Your task to perform on an android device: Open settings on Google Maps Image 0: 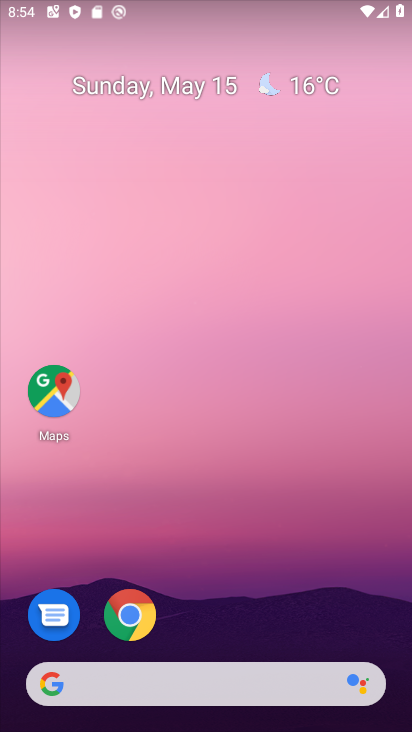
Step 0: drag from (303, 617) to (262, 122)
Your task to perform on an android device: Open settings on Google Maps Image 1: 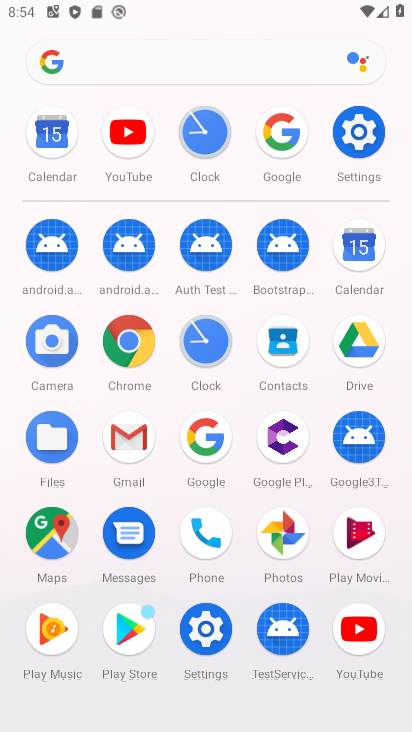
Step 1: click (49, 536)
Your task to perform on an android device: Open settings on Google Maps Image 2: 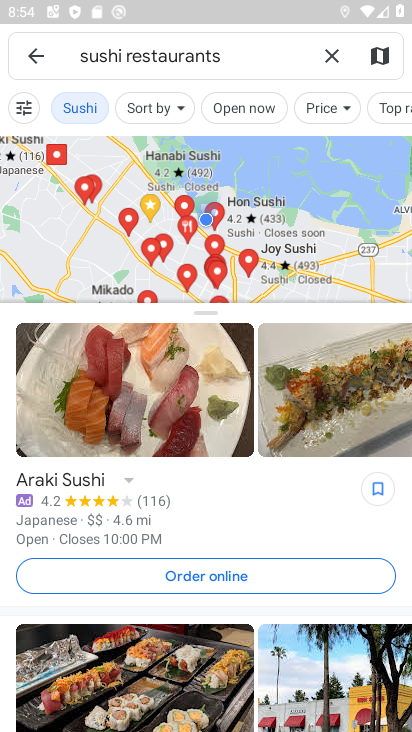
Step 2: click (41, 61)
Your task to perform on an android device: Open settings on Google Maps Image 3: 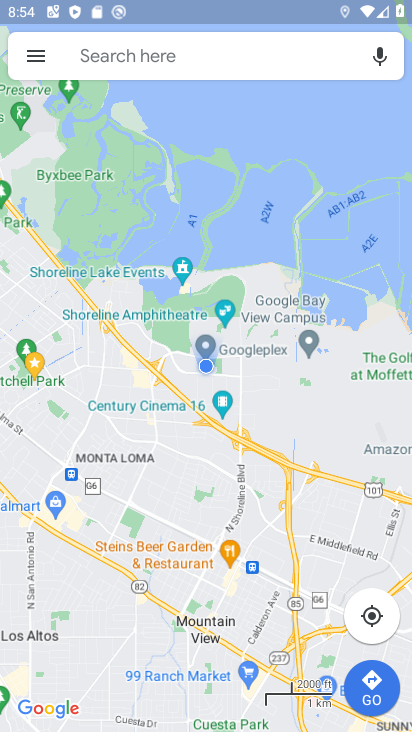
Step 3: click (40, 60)
Your task to perform on an android device: Open settings on Google Maps Image 4: 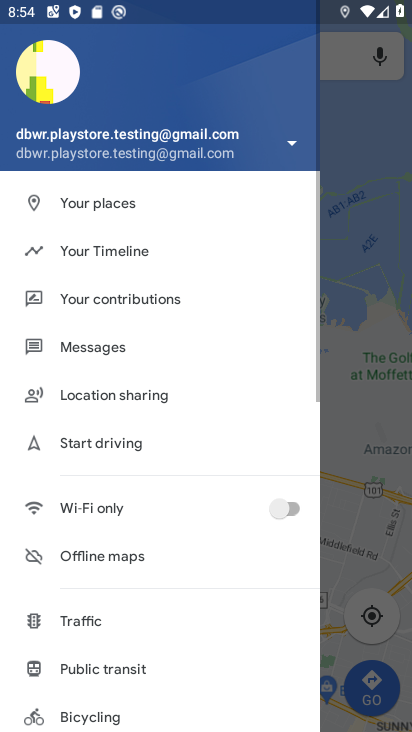
Step 4: drag from (171, 575) to (150, 286)
Your task to perform on an android device: Open settings on Google Maps Image 5: 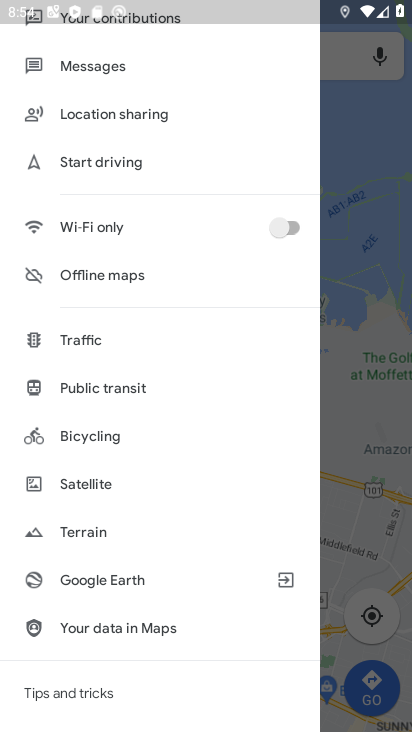
Step 5: drag from (131, 655) to (96, 308)
Your task to perform on an android device: Open settings on Google Maps Image 6: 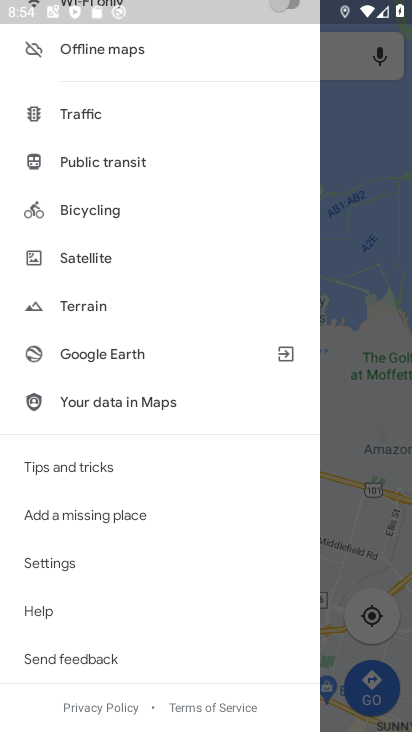
Step 6: click (60, 561)
Your task to perform on an android device: Open settings on Google Maps Image 7: 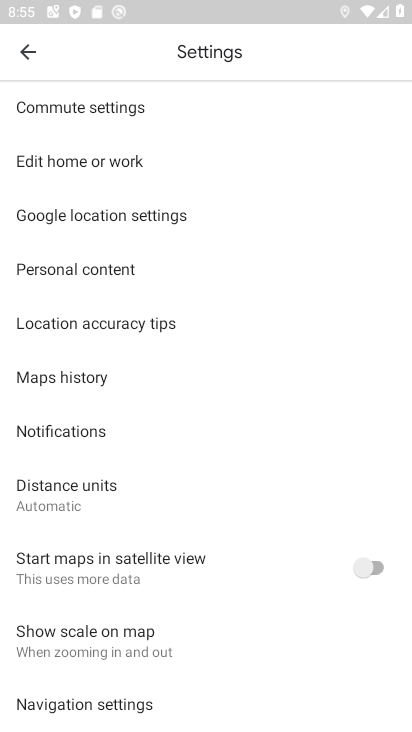
Step 7: task complete